Your task to perform on an android device: Open Google Chrome and open the bookmarks view Image 0: 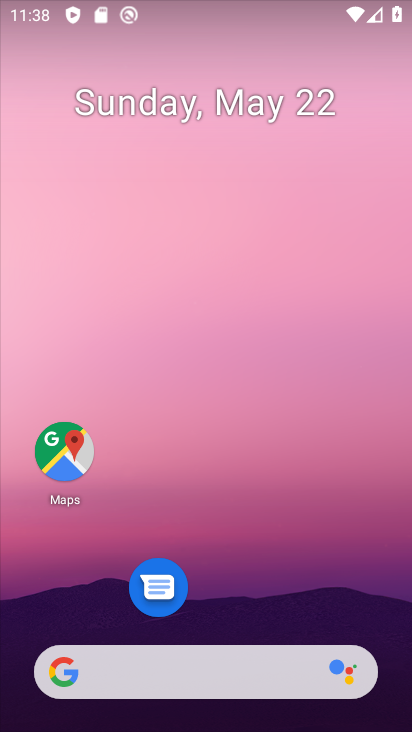
Step 0: drag from (220, 644) to (150, 17)
Your task to perform on an android device: Open Google Chrome and open the bookmarks view Image 1: 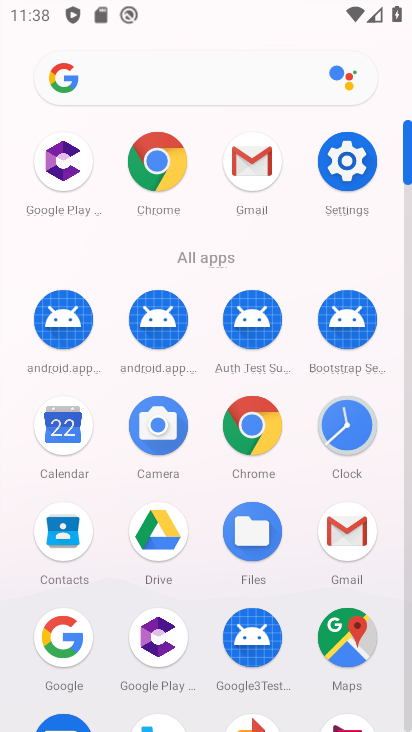
Step 1: click (135, 148)
Your task to perform on an android device: Open Google Chrome and open the bookmarks view Image 2: 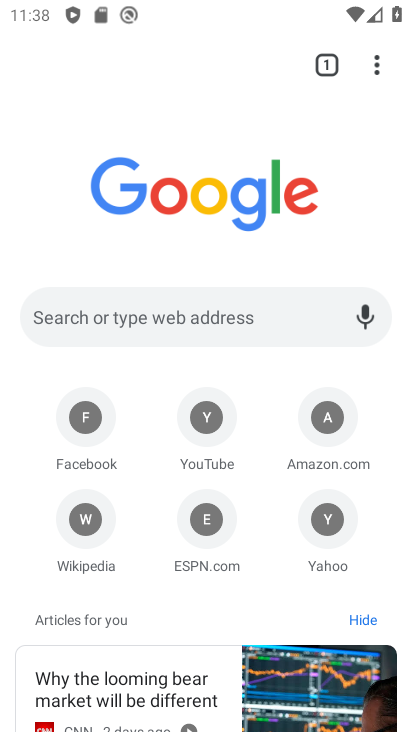
Step 2: click (372, 64)
Your task to perform on an android device: Open Google Chrome and open the bookmarks view Image 3: 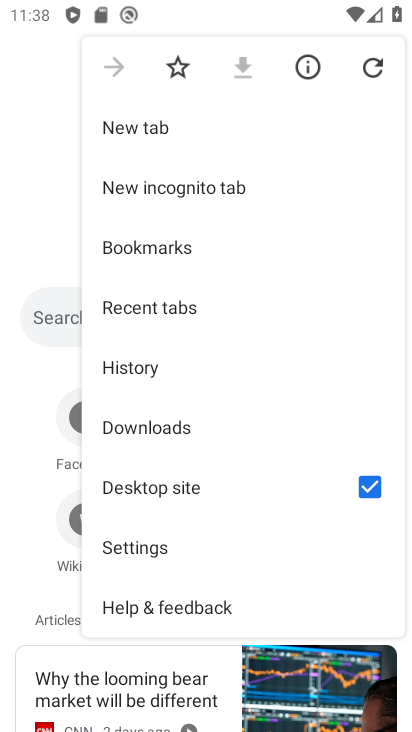
Step 3: click (123, 253)
Your task to perform on an android device: Open Google Chrome and open the bookmarks view Image 4: 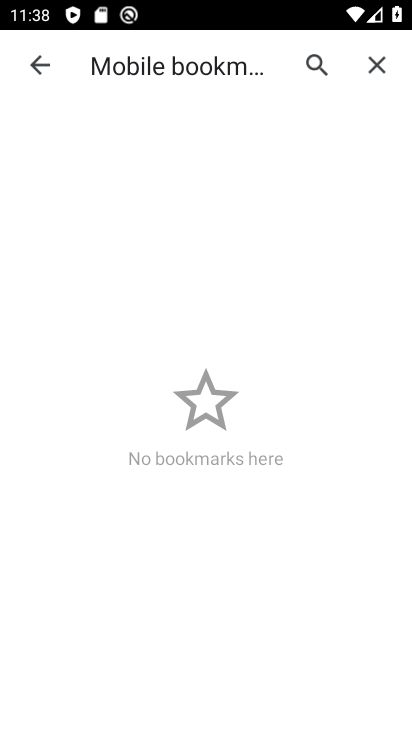
Step 4: task complete